Your task to perform on an android device: Go to wifi settings Image 0: 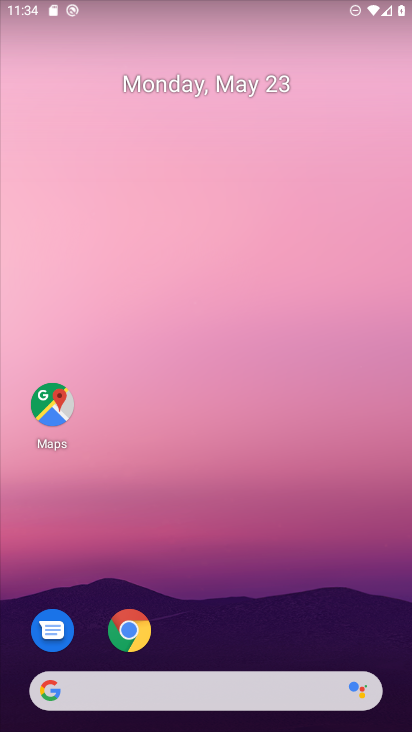
Step 0: drag from (241, 589) to (330, 164)
Your task to perform on an android device: Go to wifi settings Image 1: 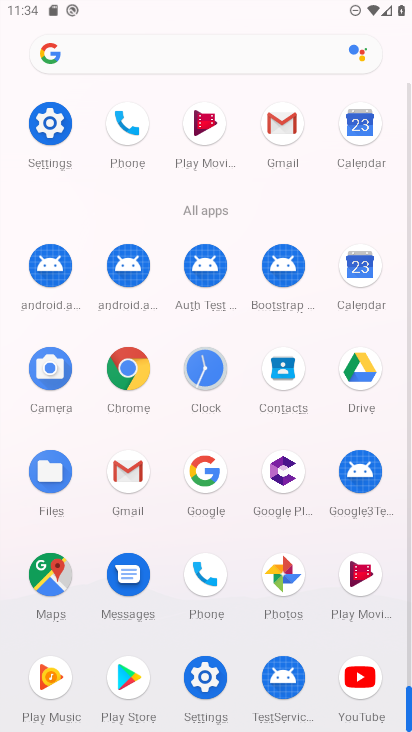
Step 1: click (47, 132)
Your task to perform on an android device: Go to wifi settings Image 2: 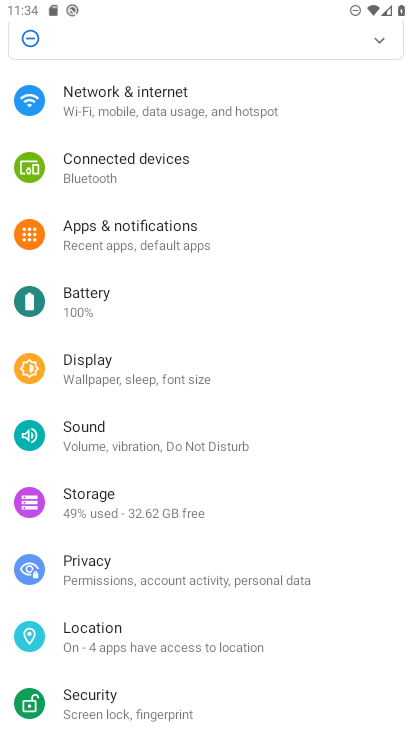
Step 2: click (145, 115)
Your task to perform on an android device: Go to wifi settings Image 3: 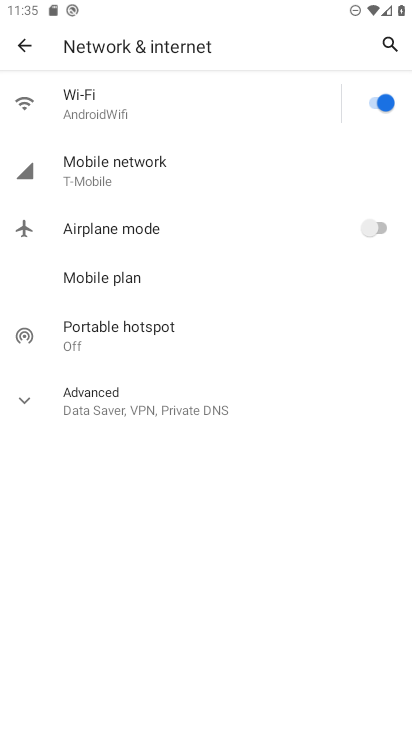
Step 3: click (116, 93)
Your task to perform on an android device: Go to wifi settings Image 4: 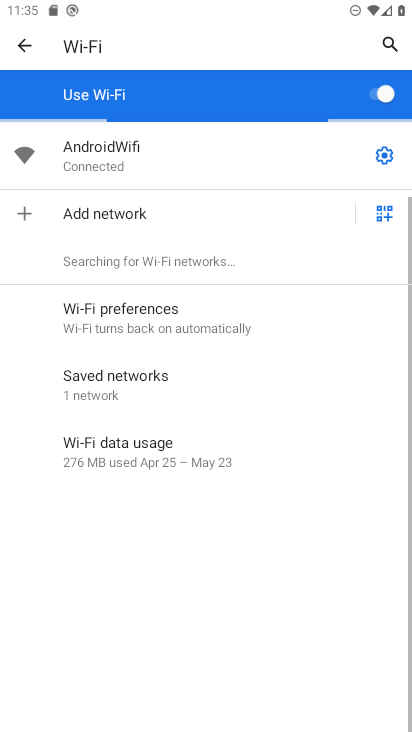
Step 4: task complete